Your task to perform on an android device: change alarm snooze length Image 0: 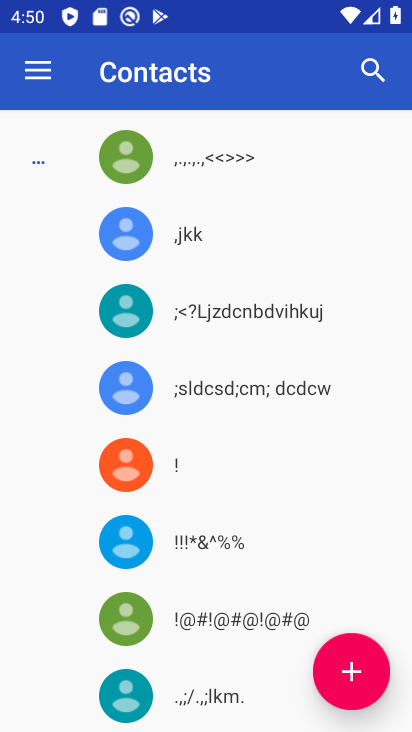
Step 0: press home button
Your task to perform on an android device: change alarm snooze length Image 1: 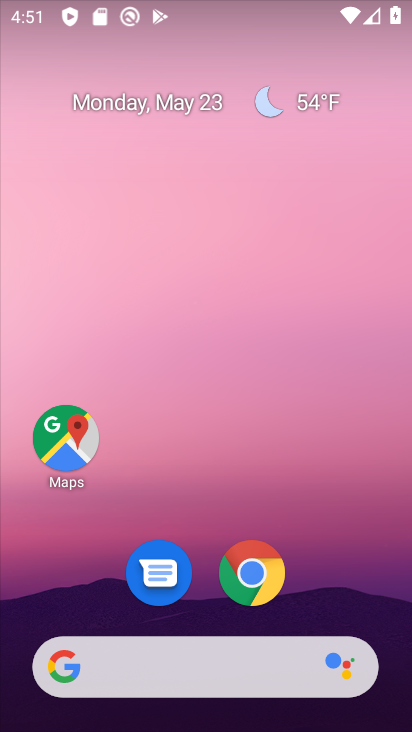
Step 1: drag from (241, 671) to (246, 162)
Your task to perform on an android device: change alarm snooze length Image 2: 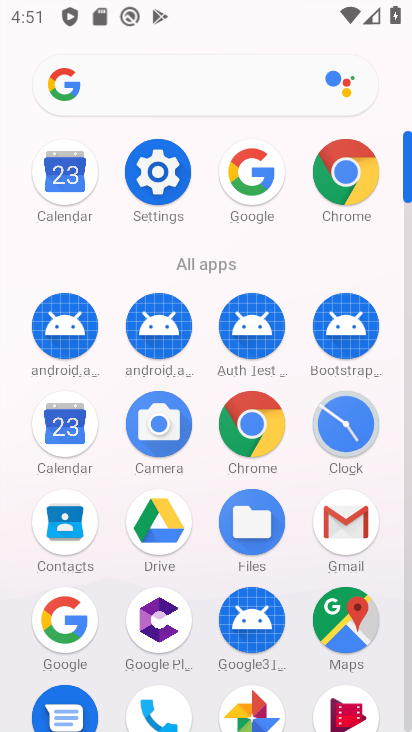
Step 2: click (344, 420)
Your task to perform on an android device: change alarm snooze length Image 3: 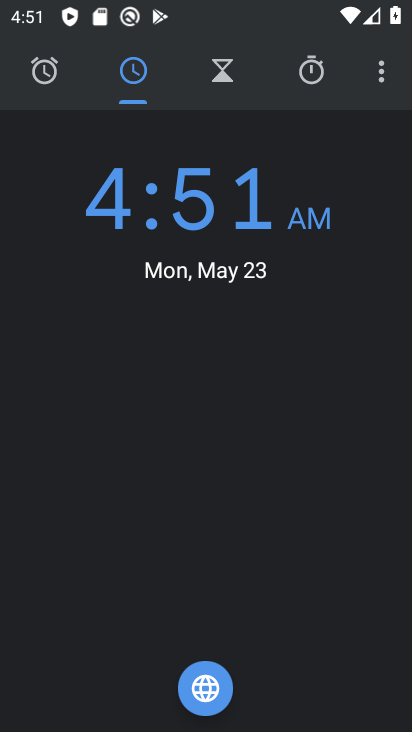
Step 3: click (380, 76)
Your task to perform on an android device: change alarm snooze length Image 4: 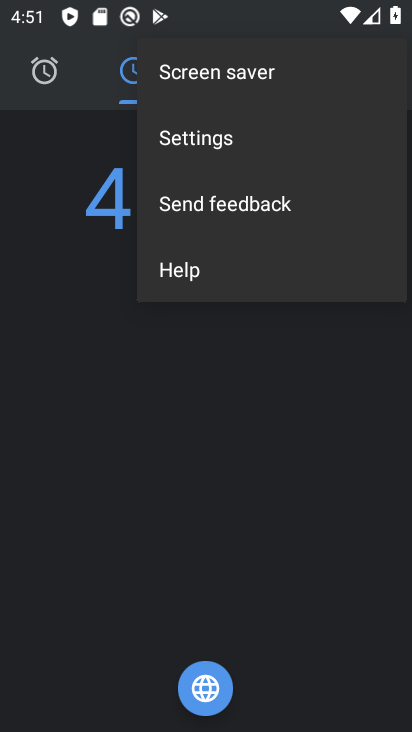
Step 4: click (197, 133)
Your task to perform on an android device: change alarm snooze length Image 5: 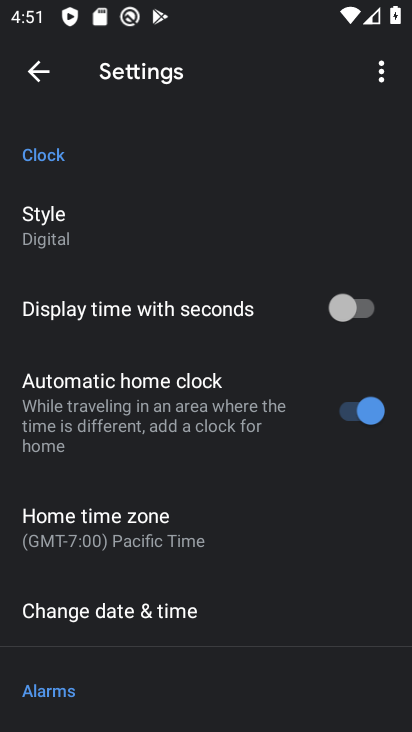
Step 5: drag from (130, 631) to (138, 172)
Your task to perform on an android device: change alarm snooze length Image 6: 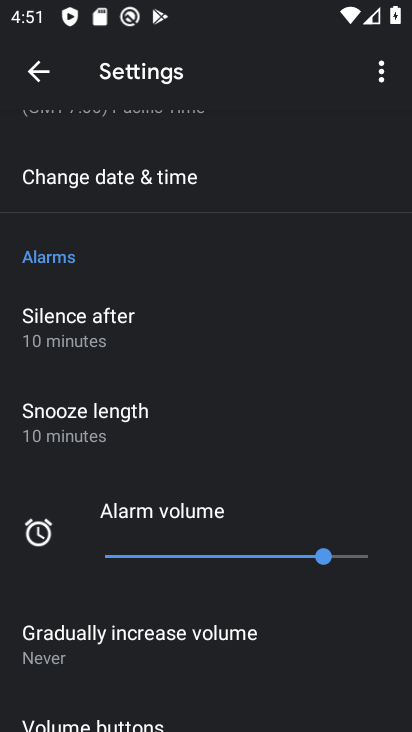
Step 6: click (76, 421)
Your task to perform on an android device: change alarm snooze length Image 7: 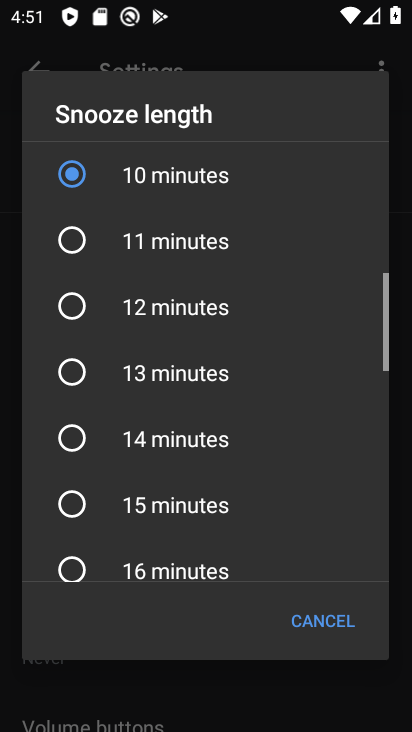
Step 7: click (68, 565)
Your task to perform on an android device: change alarm snooze length Image 8: 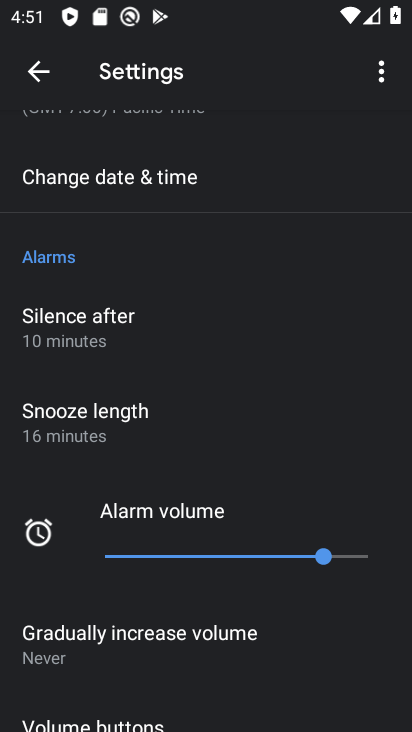
Step 8: task complete